Your task to perform on an android device: stop showing notifications on the lock screen Image 0: 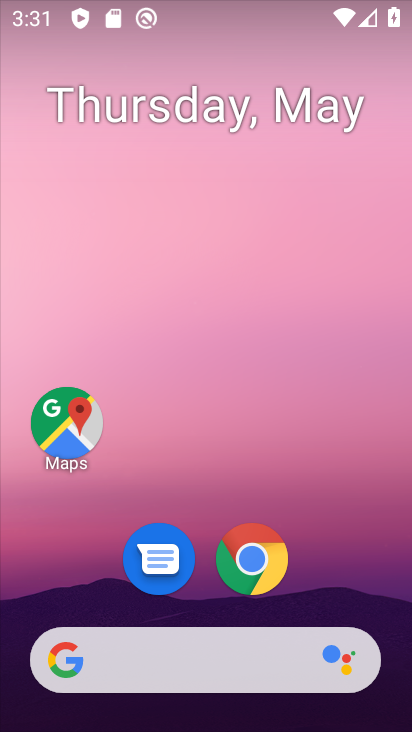
Step 0: drag from (338, 562) to (301, 168)
Your task to perform on an android device: stop showing notifications on the lock screen Image 1: 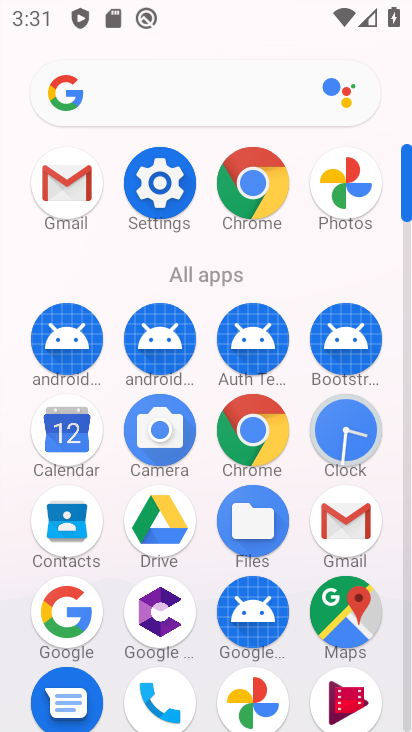
Step 1: click (158, 202)
Your task to perform on an android device: stop showing notifications on the lock screen Image 2: 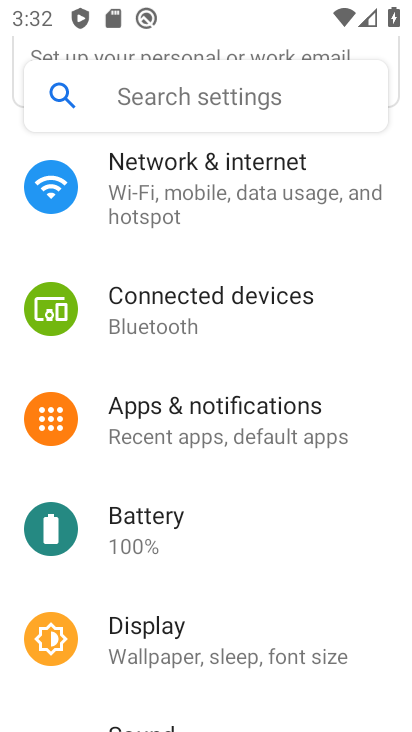
Step 2: click (294, 438)
Your task to perform on an android device: stop showing notifications on the lock screen Image 3: 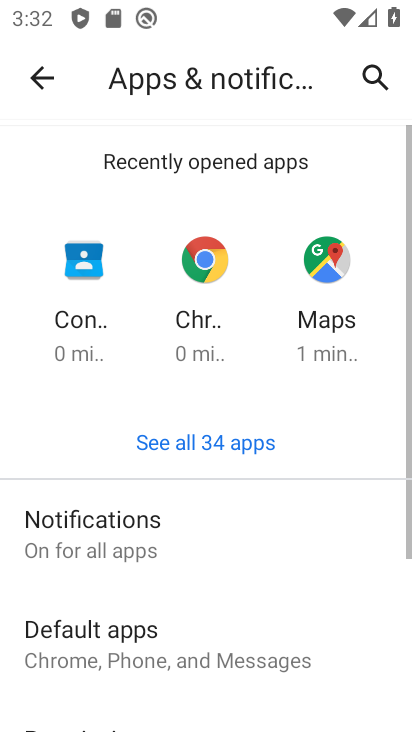
Step 3: click (142, 535)
Your task to perform on an android device: stop showing notifications on the lock screen Image 4: 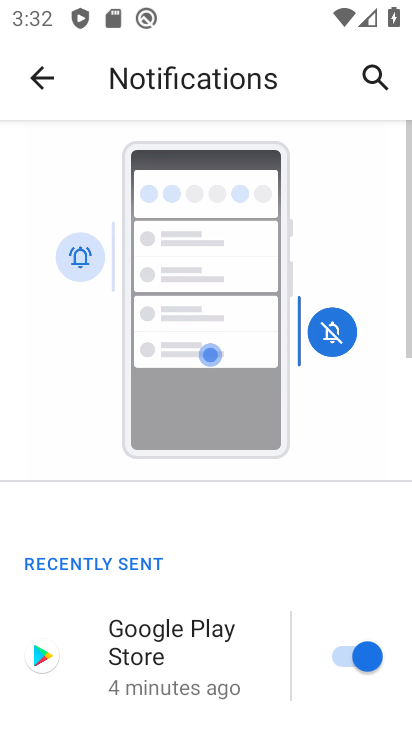
Step 4: drag from (244, 587) to (252, 225)
Your task to perform on an android device: stop showing notifications on the lock screen Image 5: 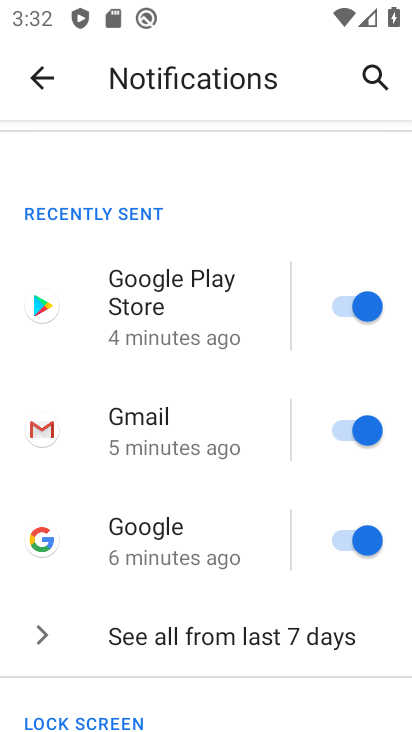
Step 5: drag from (234, 619) to (228, 272)
Your task to perform on an android device: stop showing notifications on the lock screen Image 6: 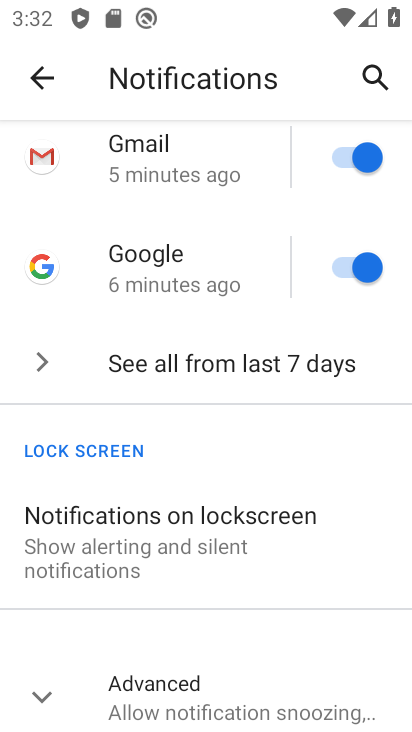
Step 6: click (248, 570)
Your task to perform on an android device: stop showing notifications on the lock screen Image 7: 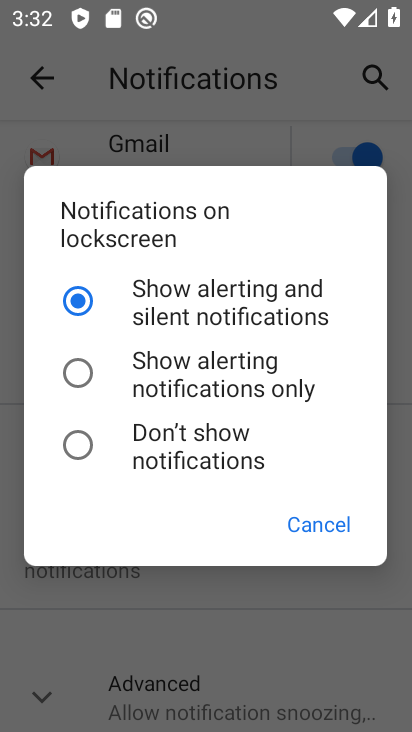
Step 7: click (172, 462)
Your task to perform on an android device: stop showing notifications on the lock screen Image 8: 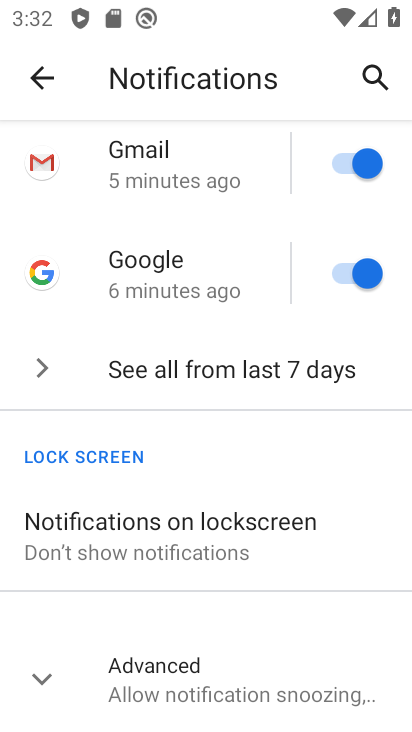
Step 8: task complete